Your task to perform on an android device: Add "usb-b" to the cart on costco.com Image 0: 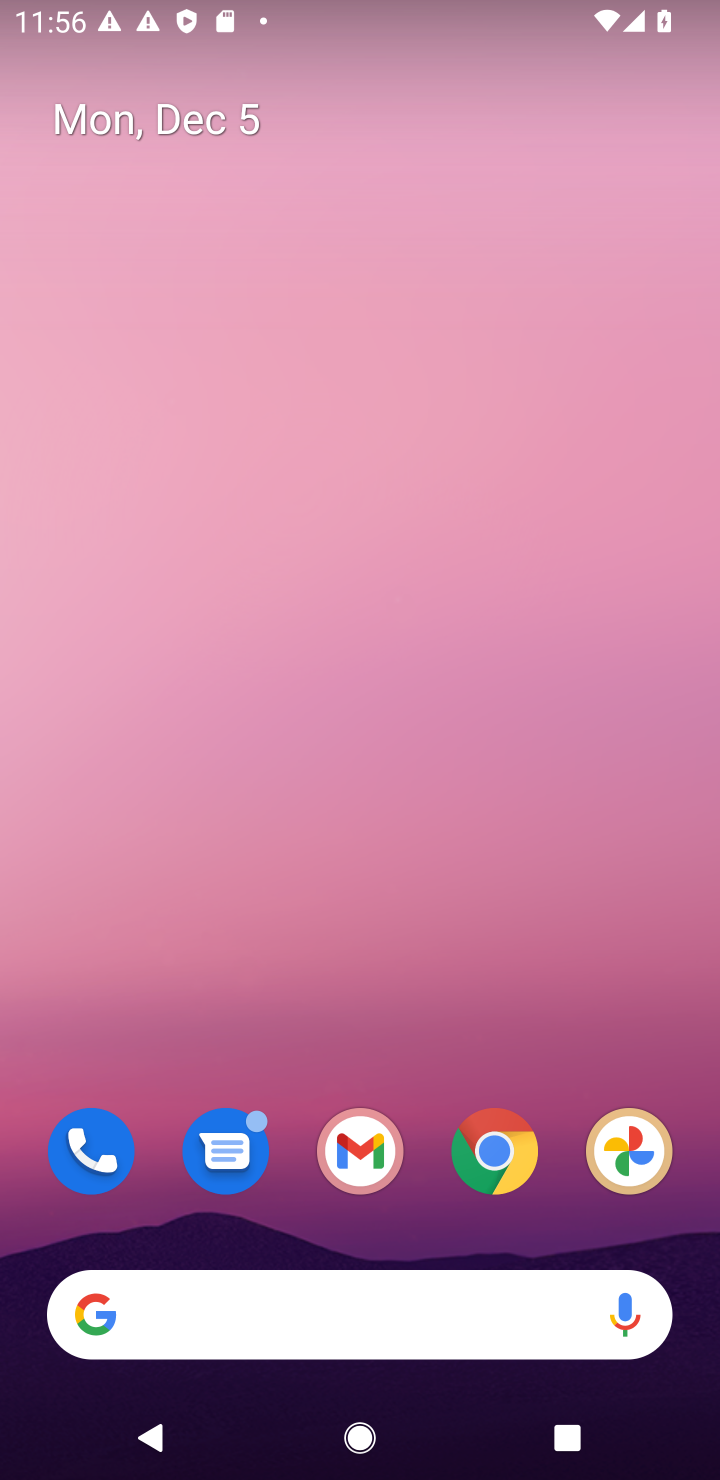
Step 0: click (494, 1165)
Your task to perform on an android device: Add "usb-b" to the cart on costco.com Image 1: 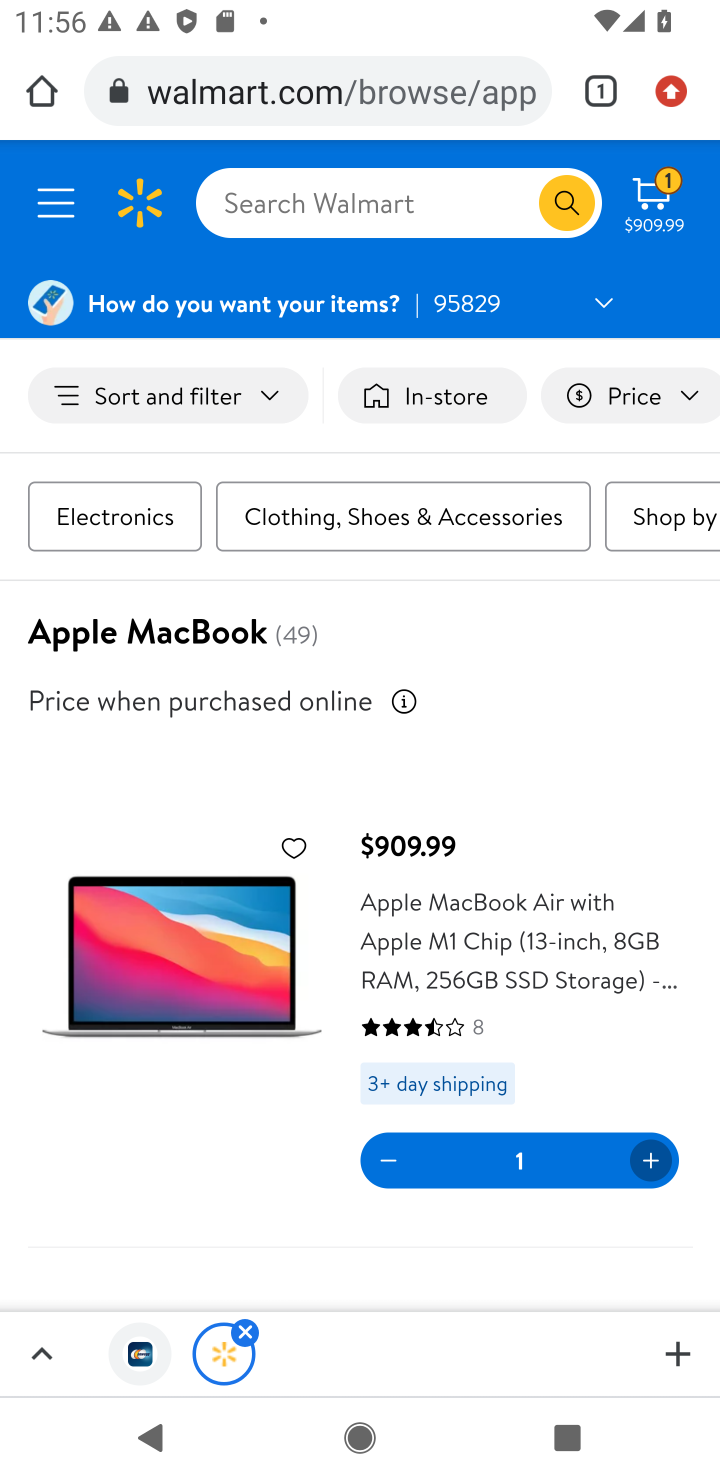
Step 1: click (262, 92)
Your task to perform on an android device: Add "usb-b" to the cart on costco.com Image 2: 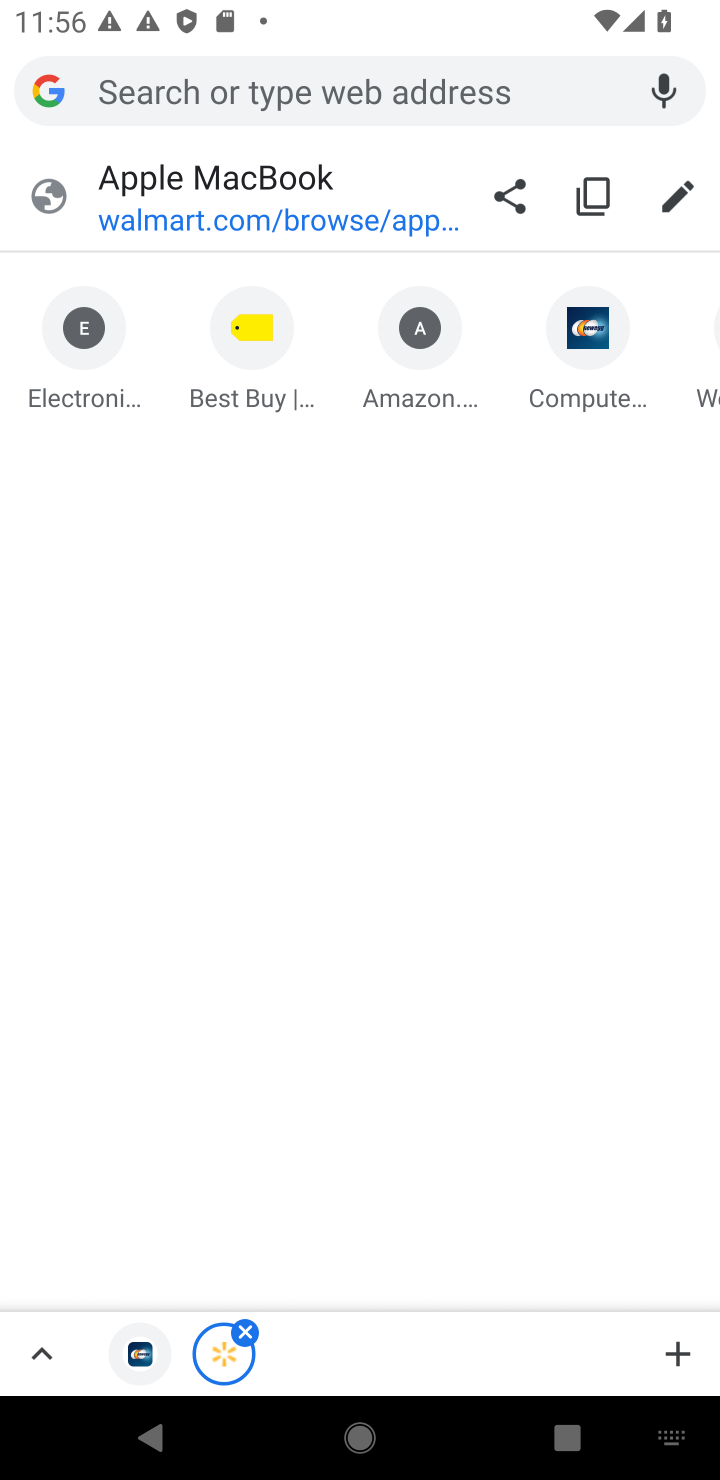
Step 2: type "costco.com"
Your task to perform on an android device: Add "usb-b" to the cart on costco.com Image 3: 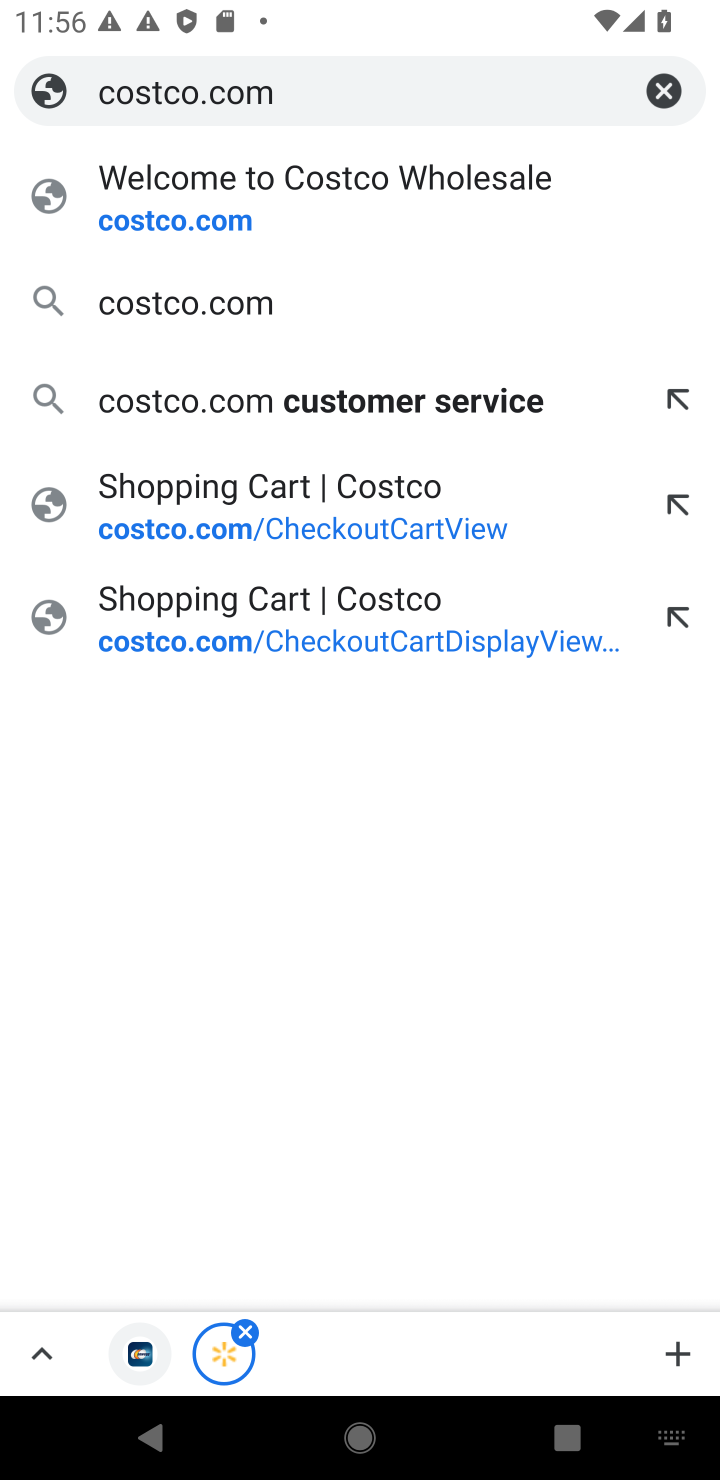
Step 3: click (172, 222)
Your task to perform on an android device: Add "usb-b" to the cart on costco.com Image 4: 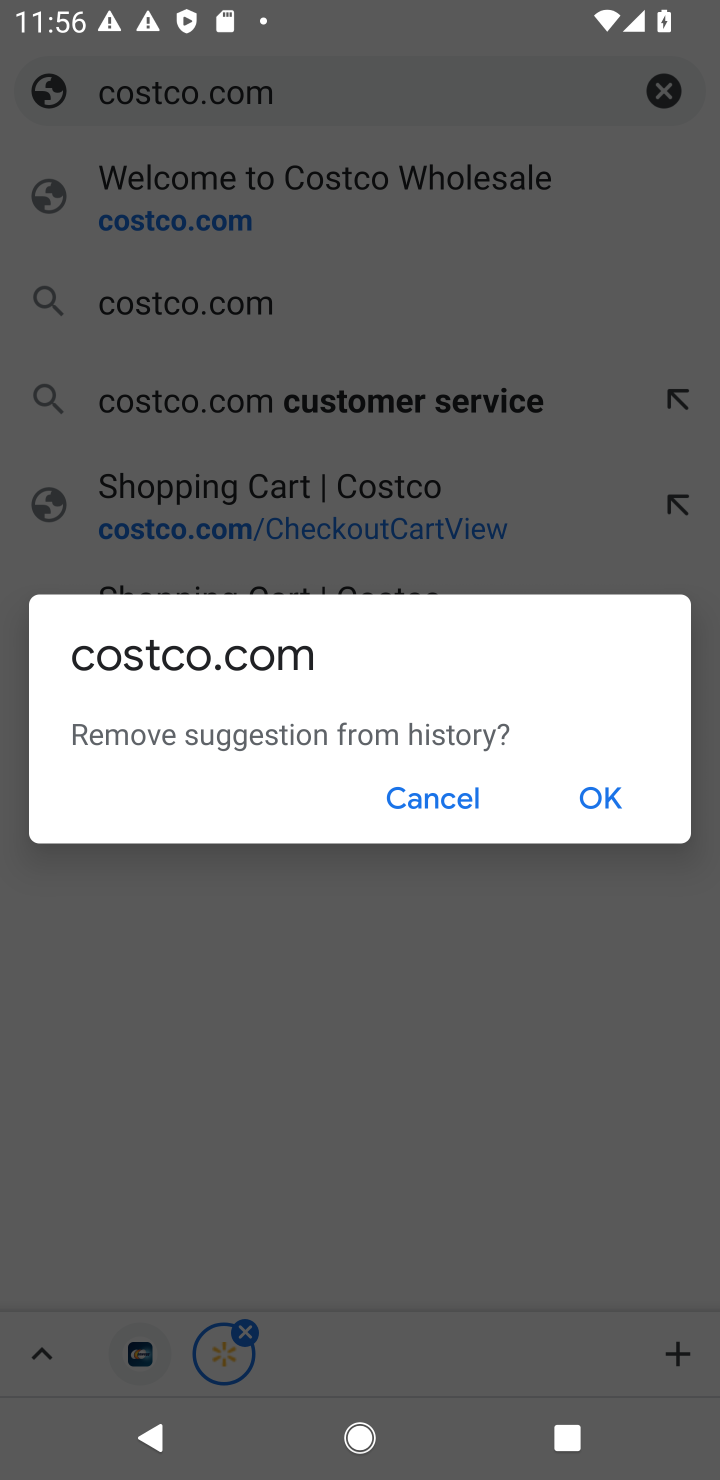
Step 4: click (459, 813)
Your task to perform on an android device: Add "usb-b" to the cart on costco.com Image 5: 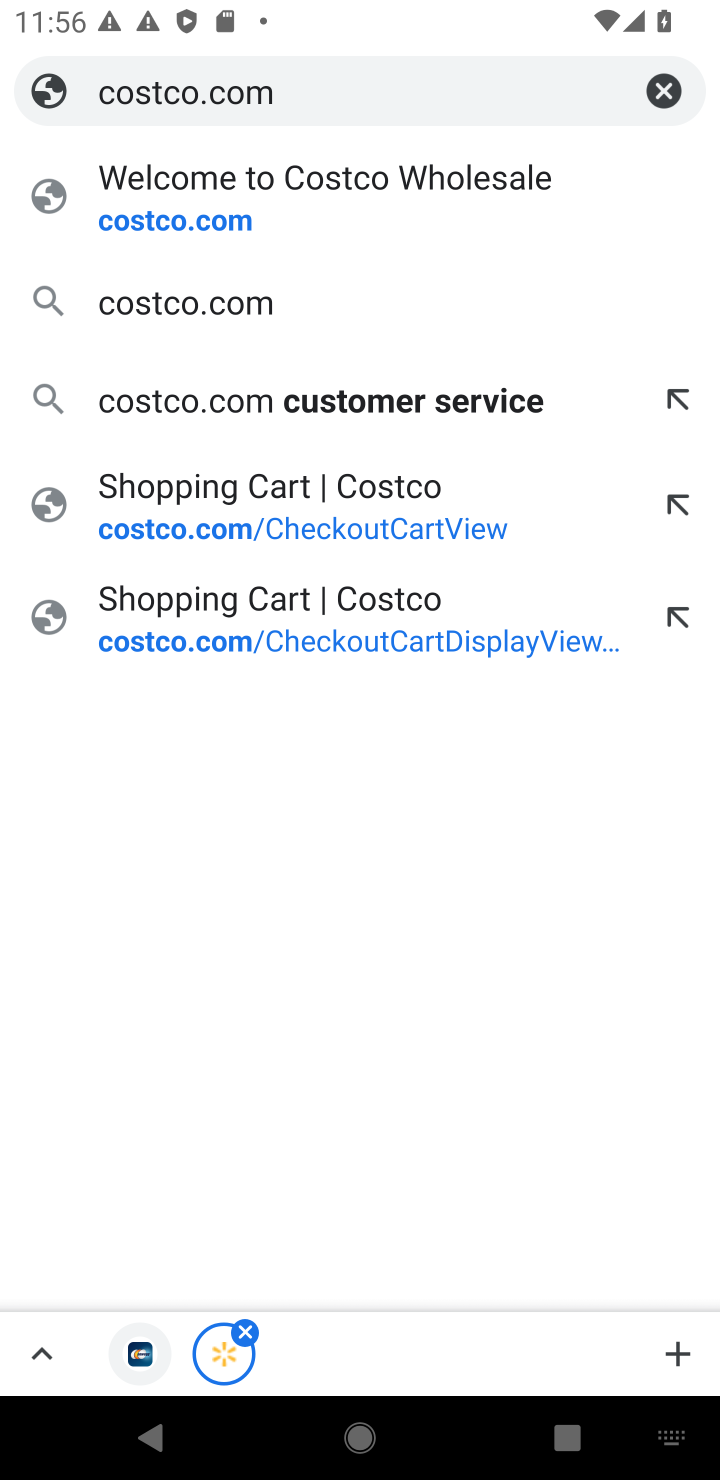
Step 5: click (146, 234)
Your task to perform on an android device: Add "usb-b" to the cart on costco.com Image 6: 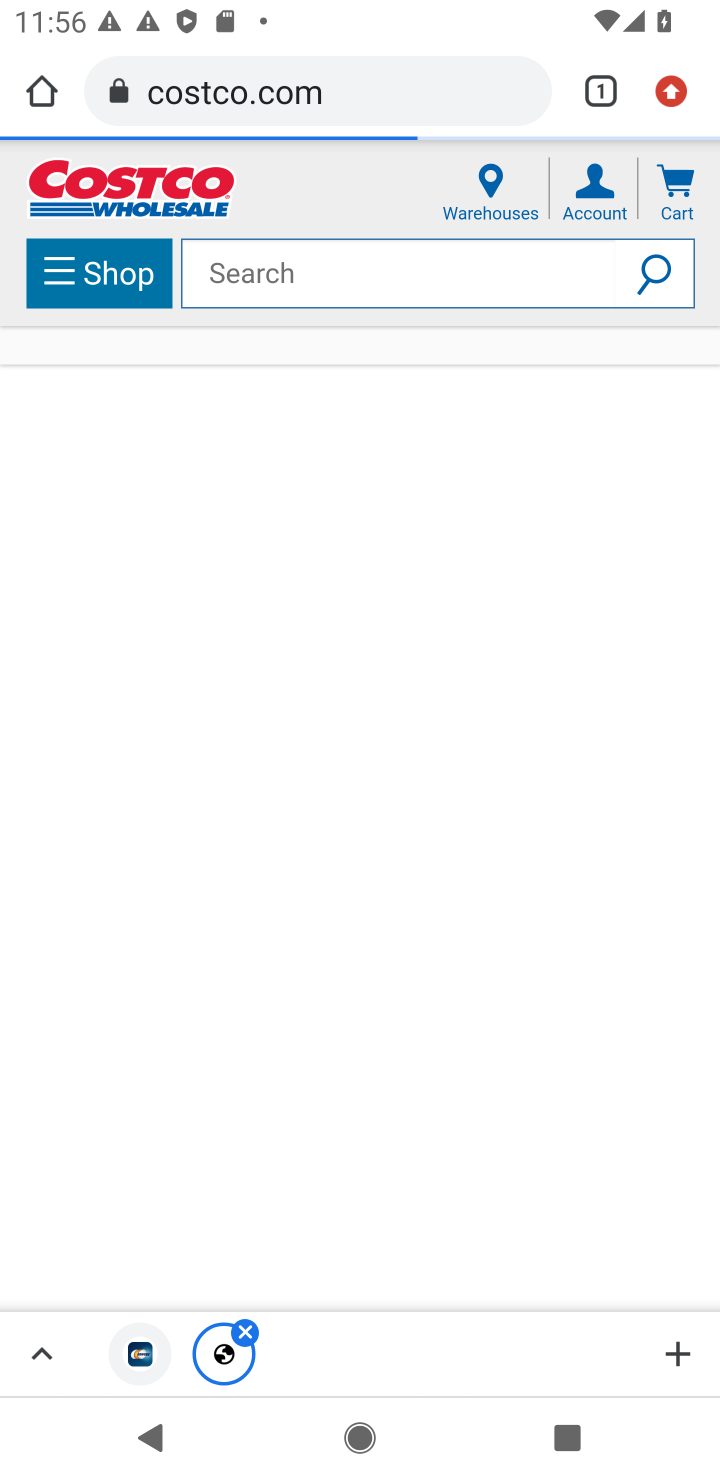
Step 6: click (274, 288)
Your task to perform on an android device: Add "usb-b" to the cart on costco.com Image 7: 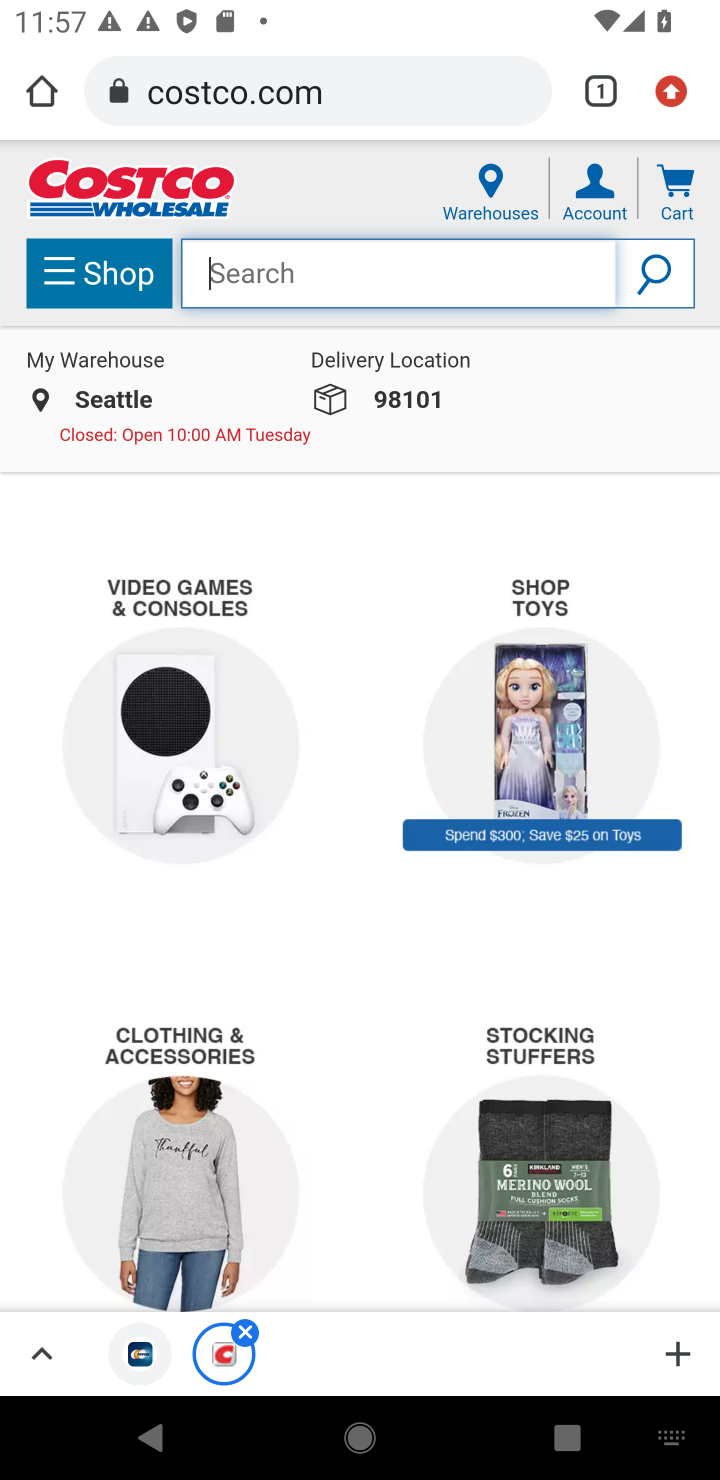
Step 7: type "usb-b"
Your task to perform on an android device: Add "usb-b" to the cart on costco.com Image 8: 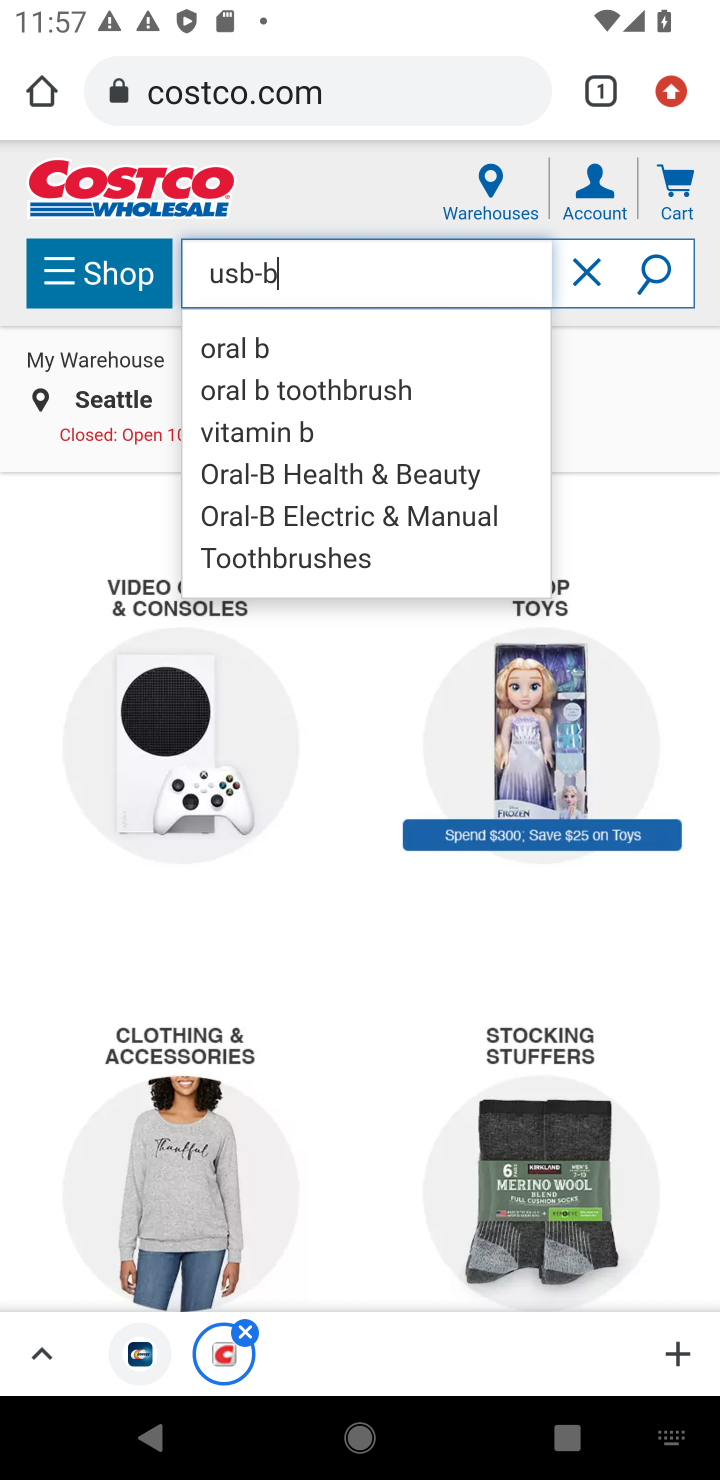
Step 8: click (663, 281)
Your task to perform on an android device: Add "usb-b" to the cart on costco.com Image 9: 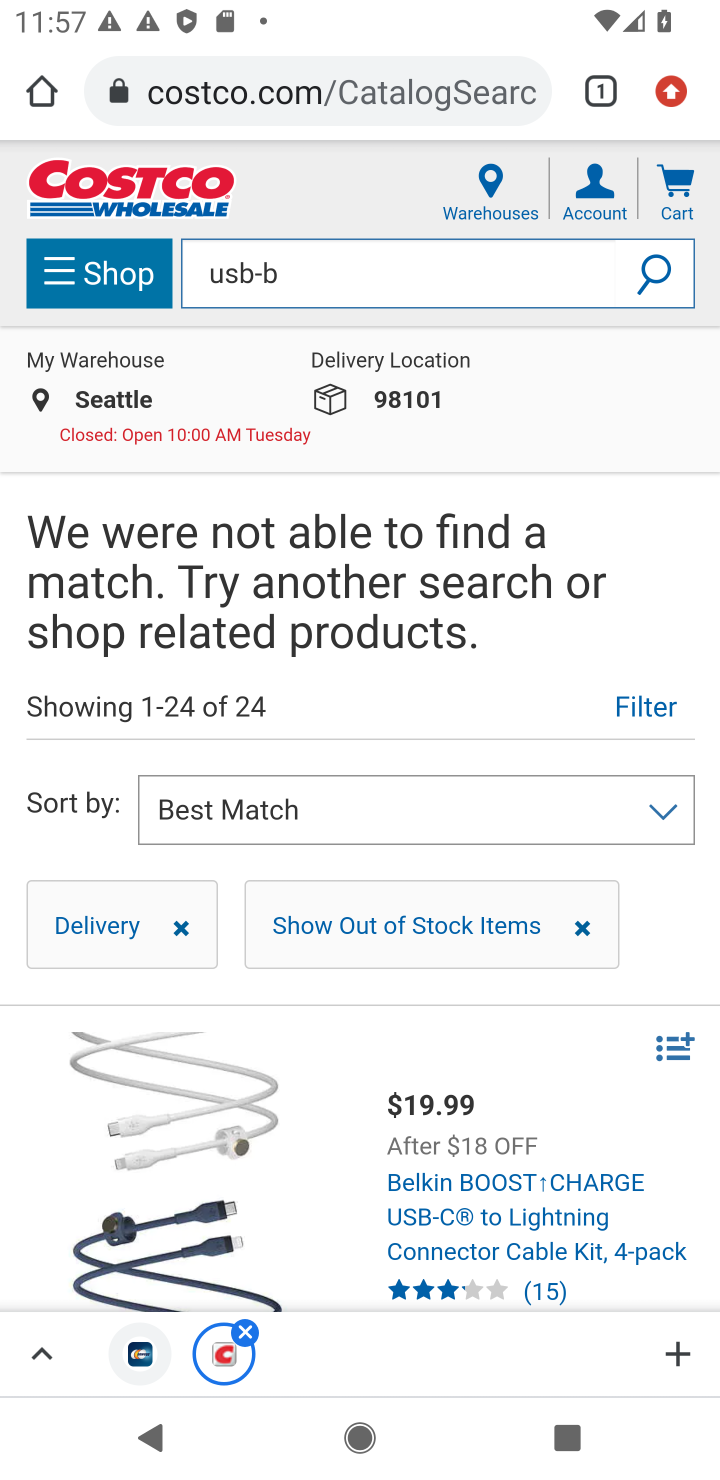
Step 9: task complete